Your task to perform on an android device: change notifications settings Image 0: 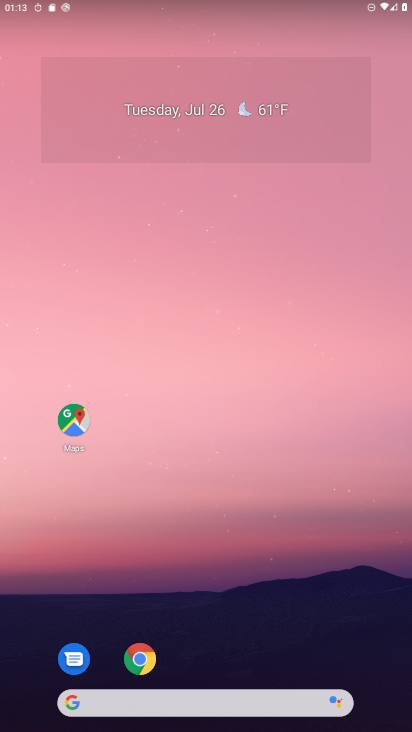
Step 0: drag from (62, 707) to (287, 75)
Your task to perform on an android device: change notifications settings Image 1: 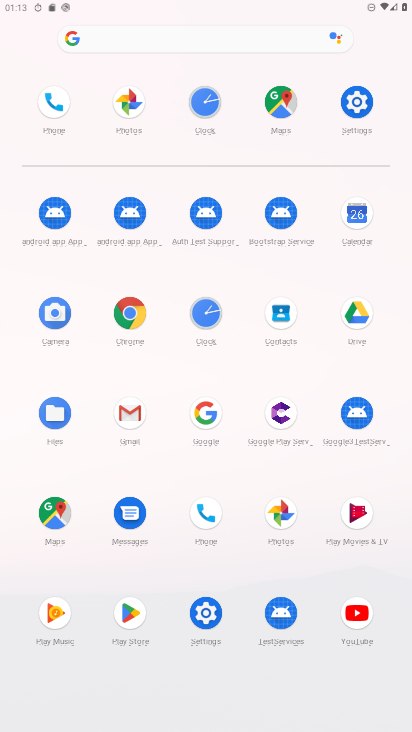
Step 1: click (190, 619)
Your task to perform on an android device: change notifications settings Image 2: 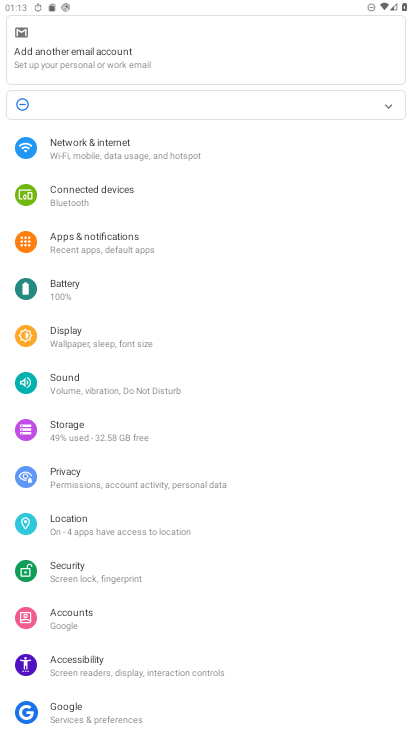
Step 2: click (126, 246)
Your task to perform on an android device: change notifications settings Image 3: 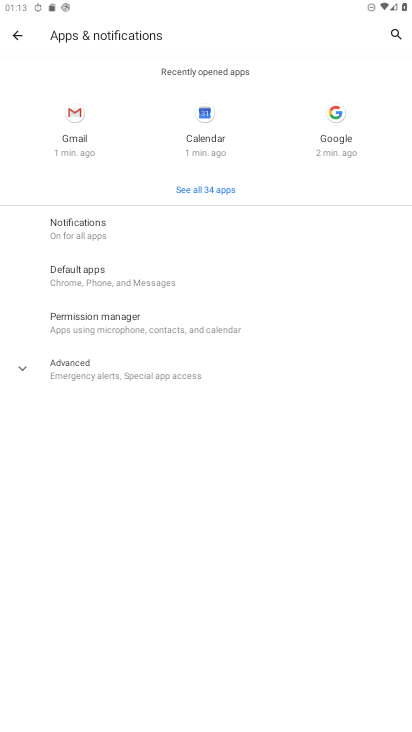
Step 3: click (96, 222)
Your task to perform on an android device: change notifications settings Image 4: 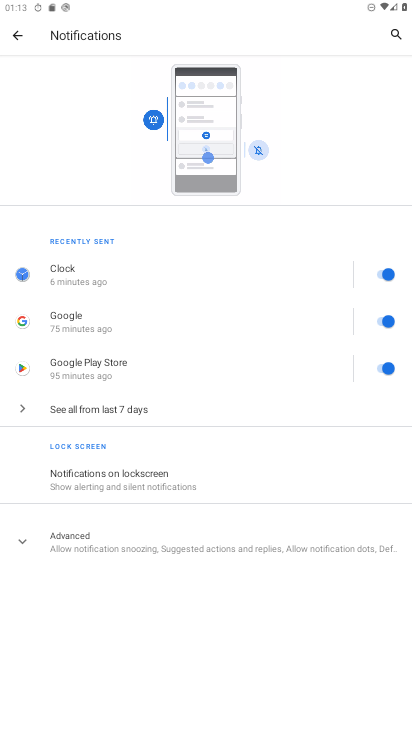
Step 4: task complete